Your task to perform on an android device: Open Wikipedia Image 0: 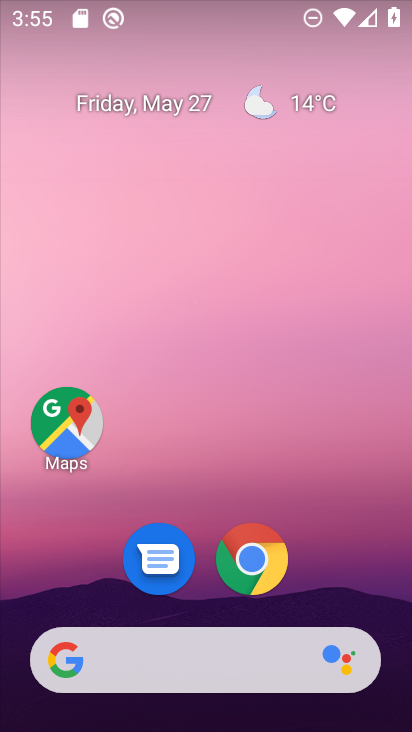
Step 0: drag from (213, 383) to (249, 2)
Your task to perform on an android device: Open Wikipedia Image 1: 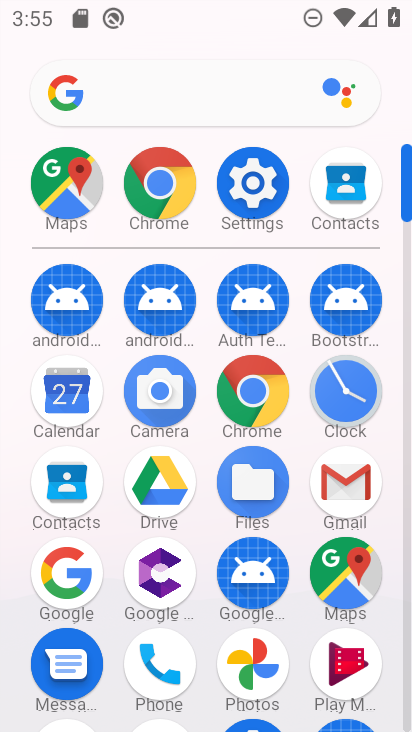
Step 1: click (276, 390)
Your task to perform on an android device: Open Wikipedia Image 2: 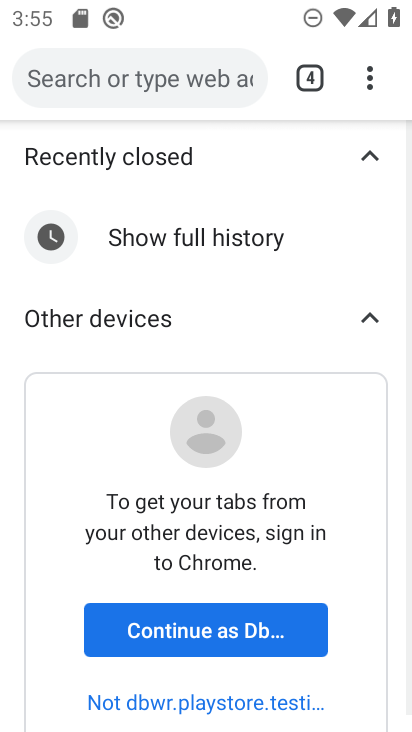
Step 2: drag from (382, 61) to (194, 140)
Your task to perform on an android device: Open Wikipedia Image 3: 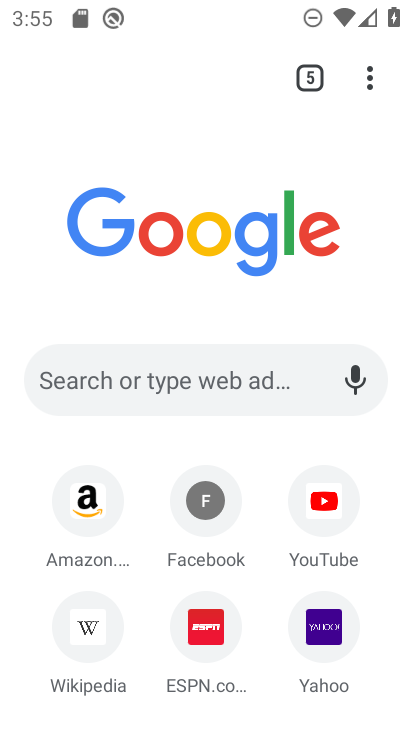
Step 3: click (99, 635)
Your task to perform on an android device: Open Wikipedia Image 4: 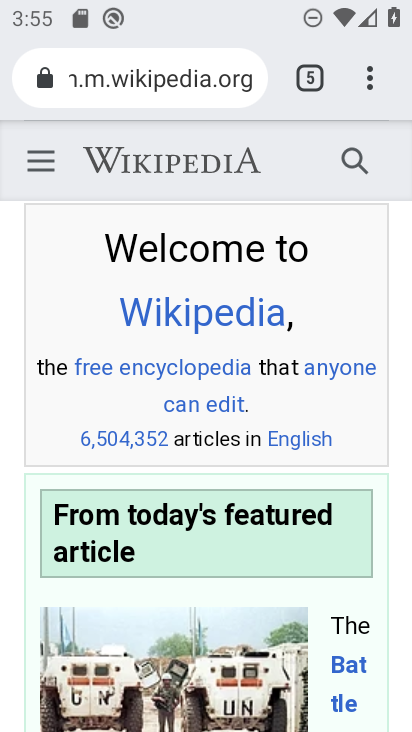
Step 4: task complete